Your task to perform on an android device: change notification settings in the gmail app Image 0: 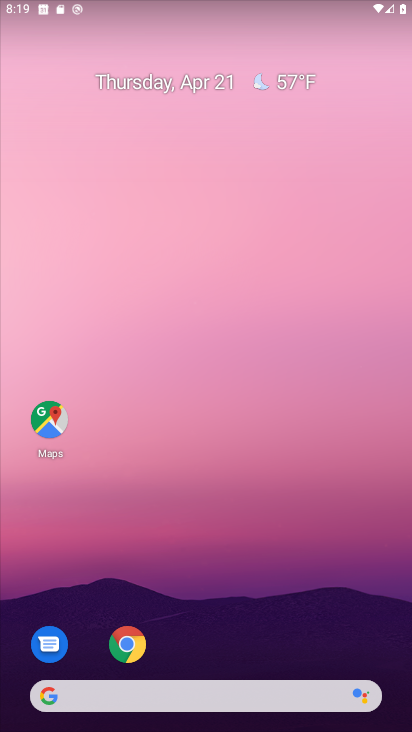
Step 0: drag from (239, 619) to (214, 62)
Your task to perform on an android device: change notification settings in the gmail app Image 1: 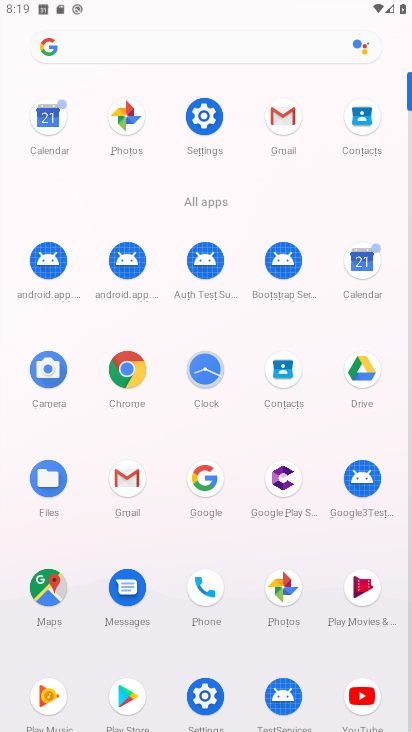
Step 1: click (279, 124)
Your task to perform on an android device: change notification settings in the gmail app Image 2: 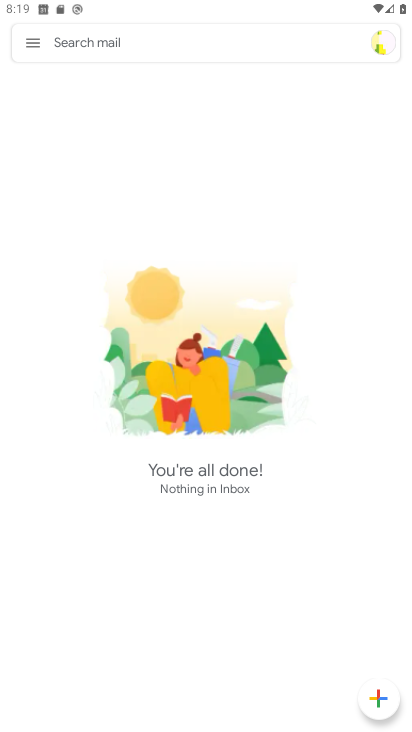
Step 2: click (36, 43)
Your task to perform on an android device: change notification settings in the gmail app Image 3: 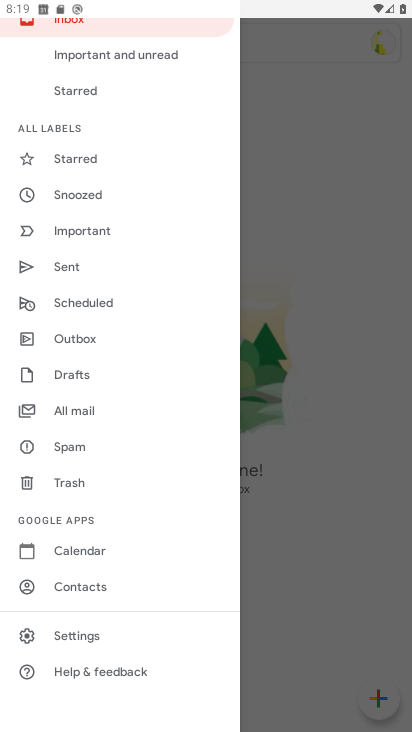
Step 3: click (120, 635)
Your task to perform on an android device: change notification settings in the gmail app Image 4: 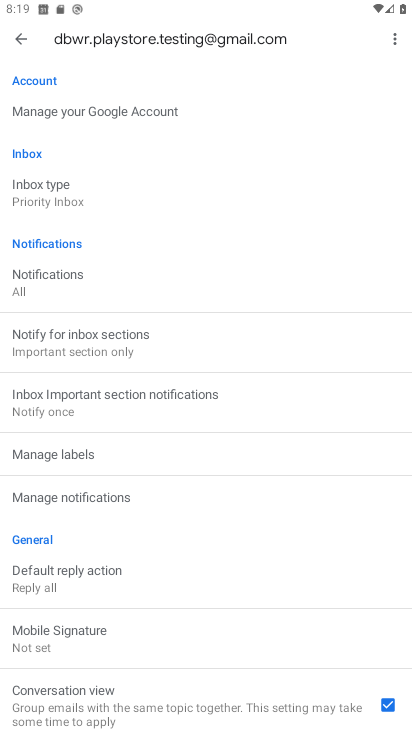
Step 4: click (87, 490)
Your task to perform on an android device: change notification settings in the gmail app Image 5: 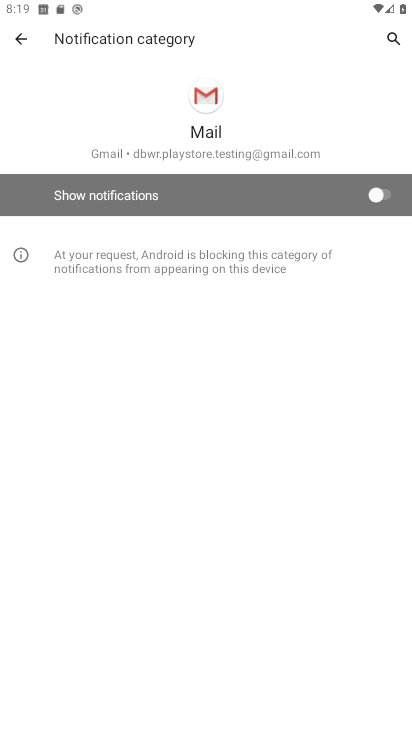
Step 5: click (370, 191)
Your task to perform on an android device: change notification settings in the gmail app Image 6: 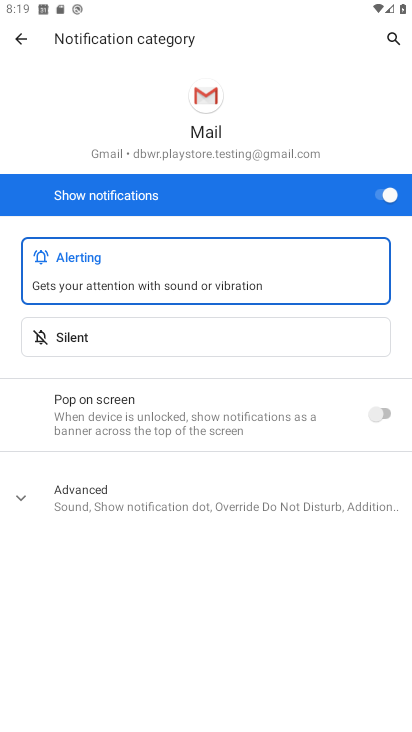
Step 6: task complete